Your task to perform on an android device: move an email to a new category in the gmail app Image 0: 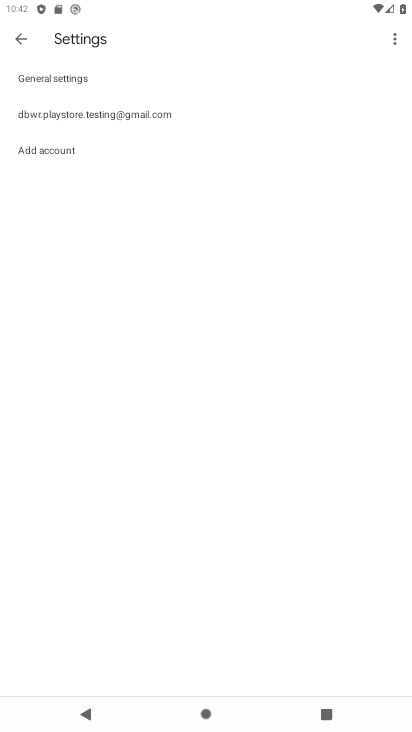
Step 0: press home button
Your task to perform on an android device: move an email to a new category in the gmail app Image 1: 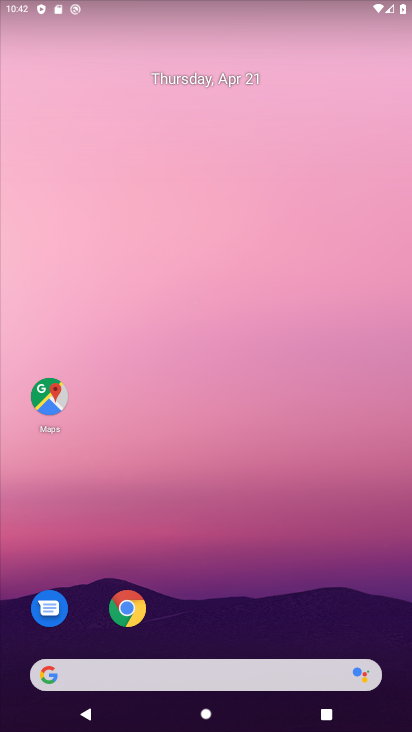
Step 1: drag from (215, 606) to (171, 182)
Your task to perform on an android device: move an email to a new category in the gmail app Image 2: 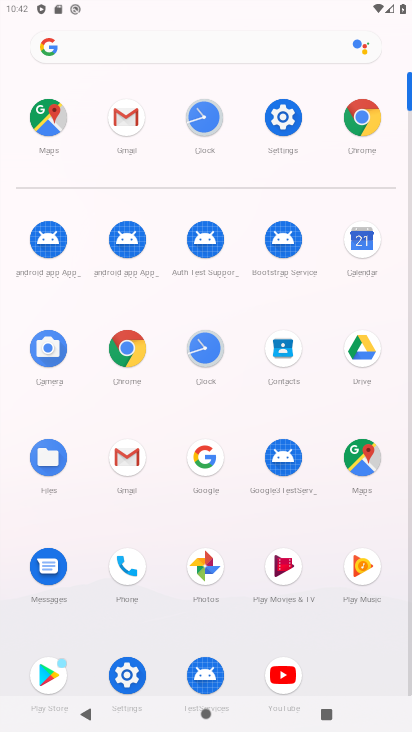
Step 2: click (127, 116)
Your task to perform on an android device: move an email to a new category in the gmail app Image 3: 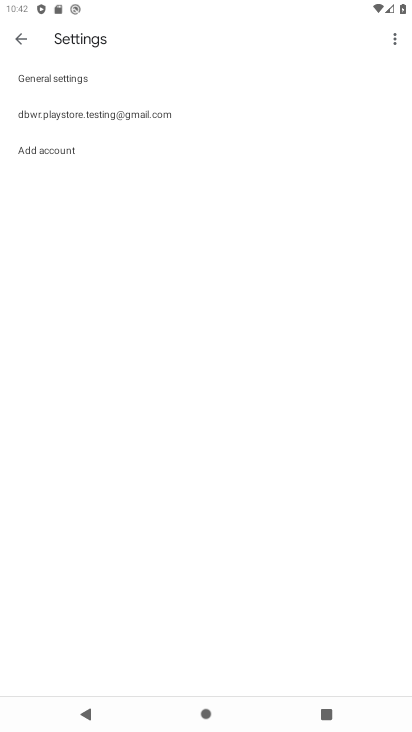
Step 3: click (21, 41)
Your task to perform on an android device: move an email to a new category in the gmail app Image 4: 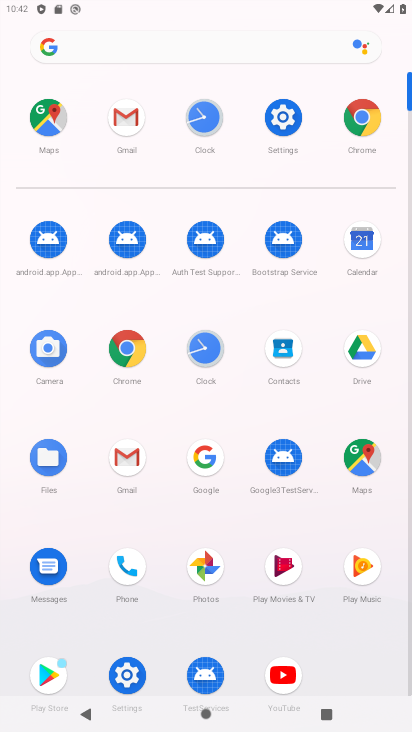
Step 4: click (131, 121)
Your task to perform on an android device: move an email to a new category in the gmail app Image 5: 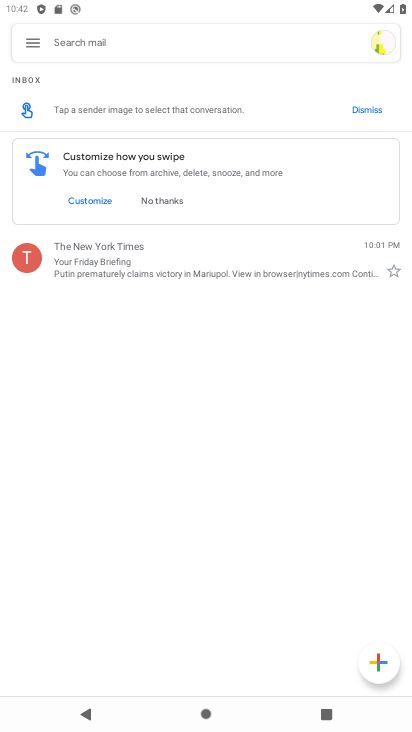
Step 5: click (30, 50)
Your task to perform on an android device: move an email to a new category in the gmail app Image 6: 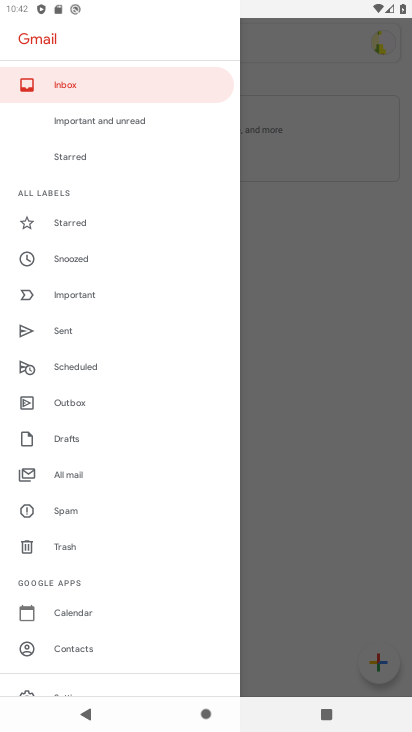
Step 6: click (328, 265)
Your task to perform on an android device: move an email to a new category in the gmail app Image 7: 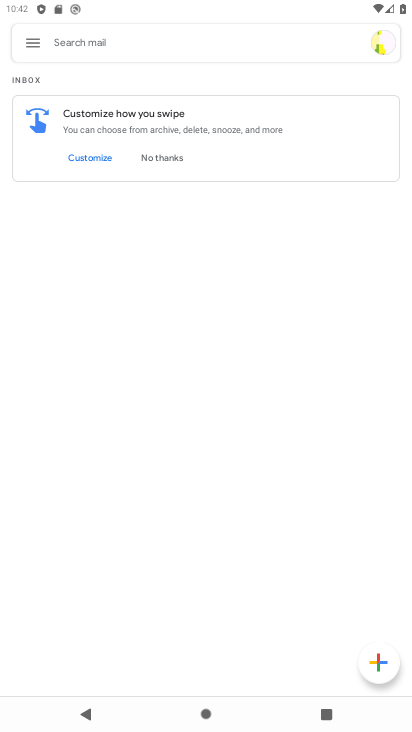
Step 7: click (34, 44)
Your task to perform on an android device: move an email to a new category in the gmail app Image 8: 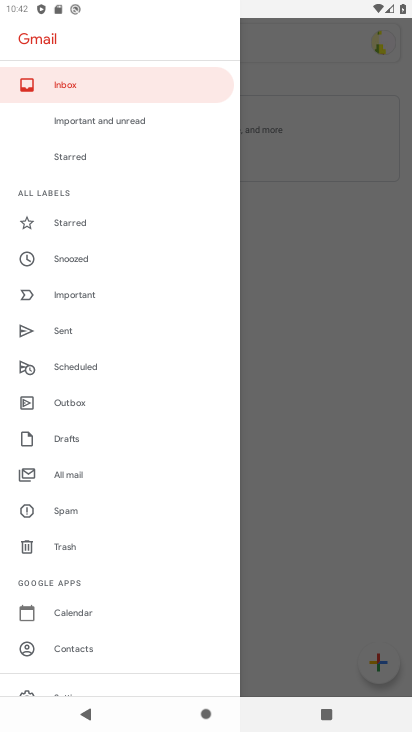
Step 8: click (110, 522)
Your task to perform on an android device: move an email to a new category in the gmail app Image 9: 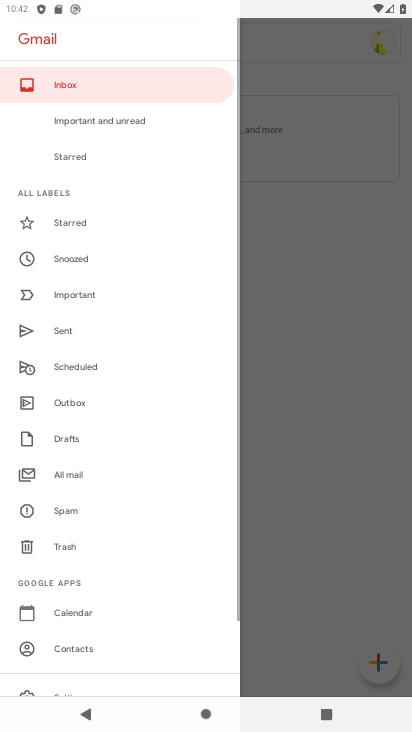
Step 9: click (319, 319)
Your task to perform on an android device: move an email to a new category in the gmail app Image 10: 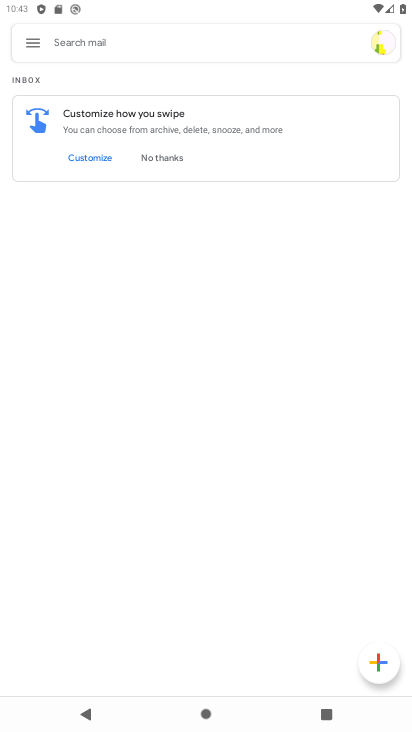
Step 10: task complete